Your task to perform on an android device: Show me popular videos on Youtube Image 0: 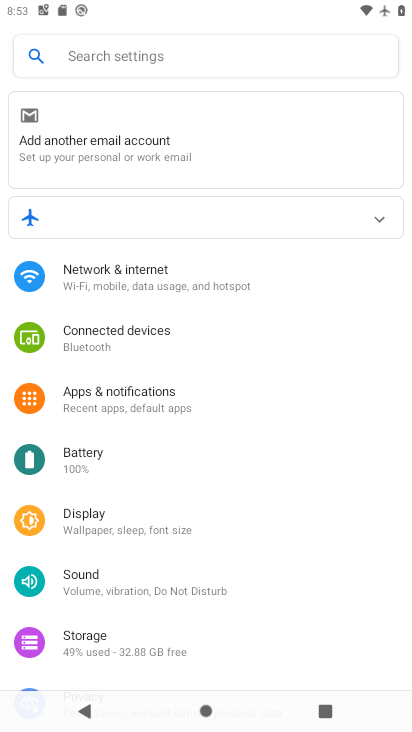
Step 0: press home button
Your task to perform on an android device: Show me popular videos on Youtube Image 1: 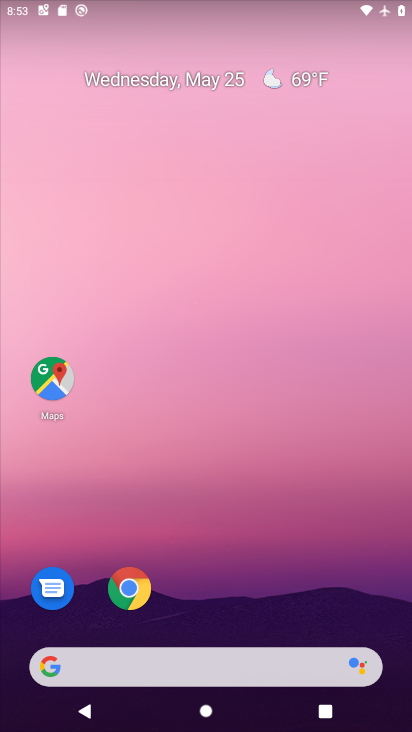
Step 1: drag from (359, 602) to (372, 262)
Your task to perform on an android device: Show me popular videos on Youtube Image 2: 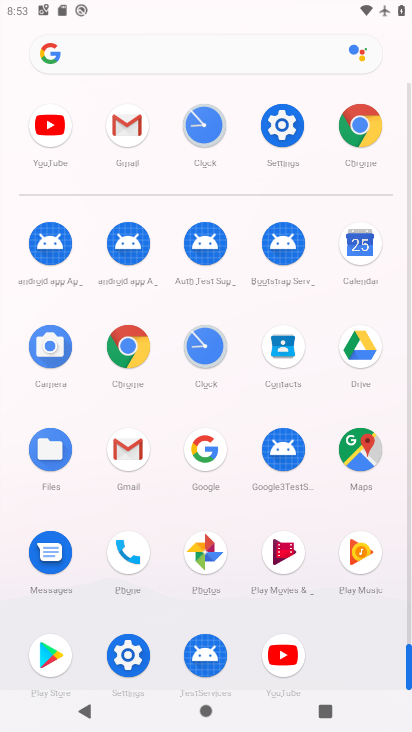
Step 2: click (276, 657)
Your task to perform on an android device: Show me popular videos on Youtube Image 3: 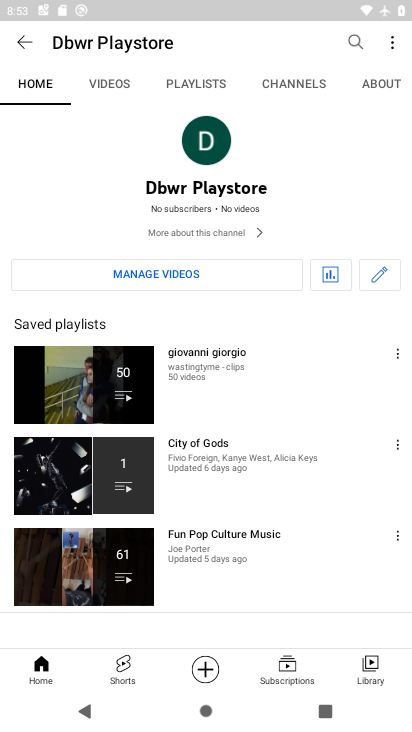
Step 3: click (42, 675)
Your task to perform on an android device: Show me popular videos on Youtube Image 4: 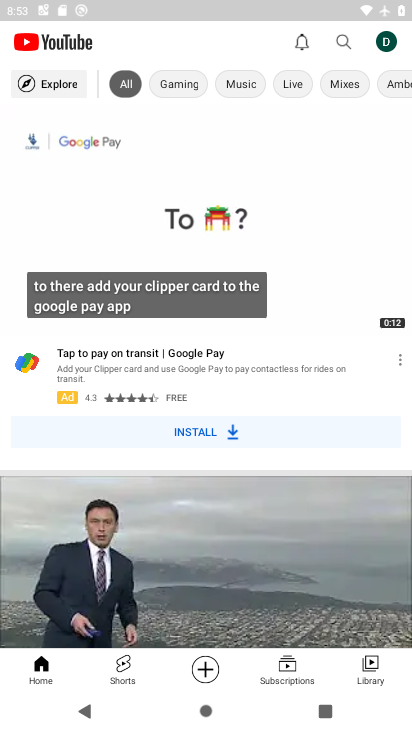
Step 4: task complete